Your task to perform on an android device: Turn off the flashlight Image 0: 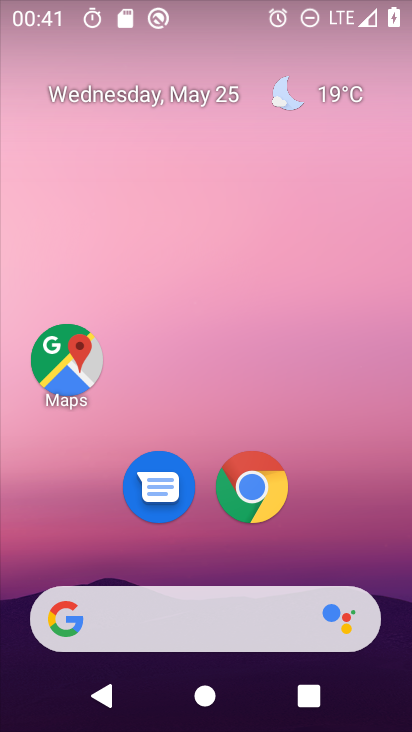
Step 0: drag from (212, 5) to (235, 714)
Your task to perform on an android device: Turn off the flashlight Image 1: 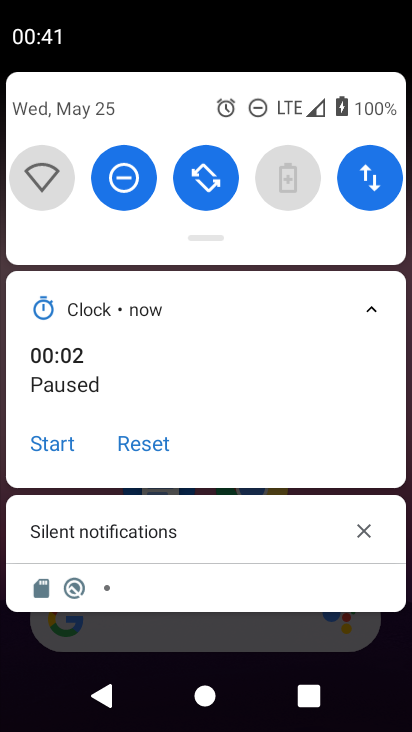
Step 1: task complete